Your task to perform on an android device: check storage Image 0: 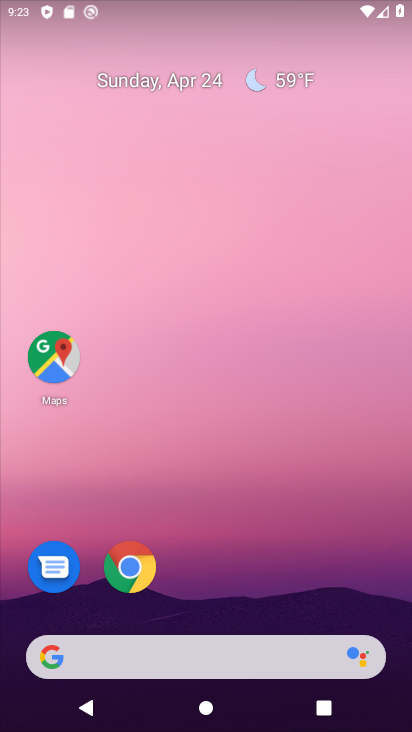
Step 0: click (347, 174)
Your task to perform on an android device: check storage Image 1: 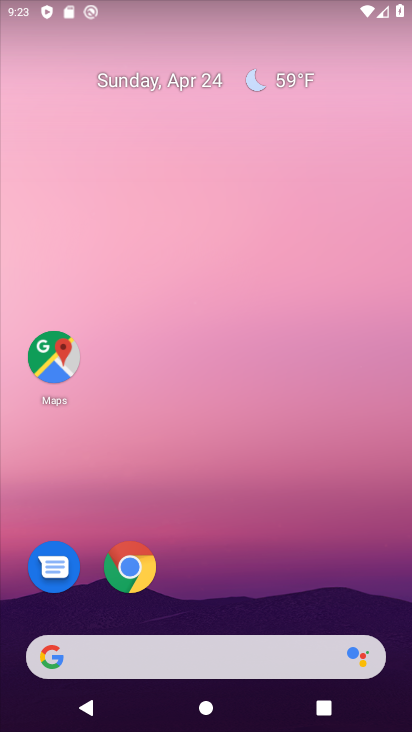
Step 1: drag from (329, 164) to (307, 66)
Your task to perform on an android device: check storage Image 2: 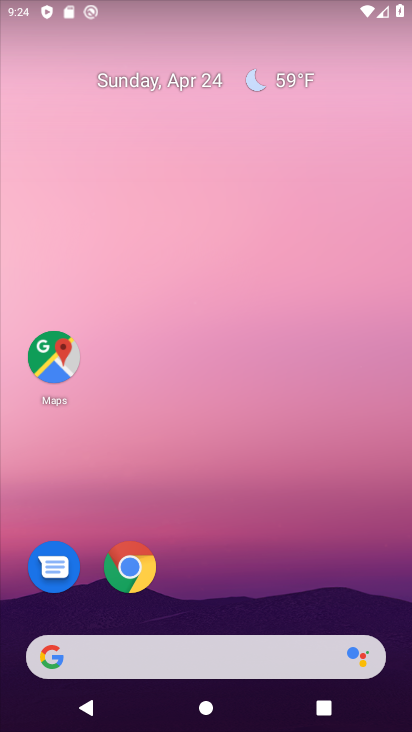
Step 2: click (289, 197)
Your task to perform on an android device: check storage Image 3: 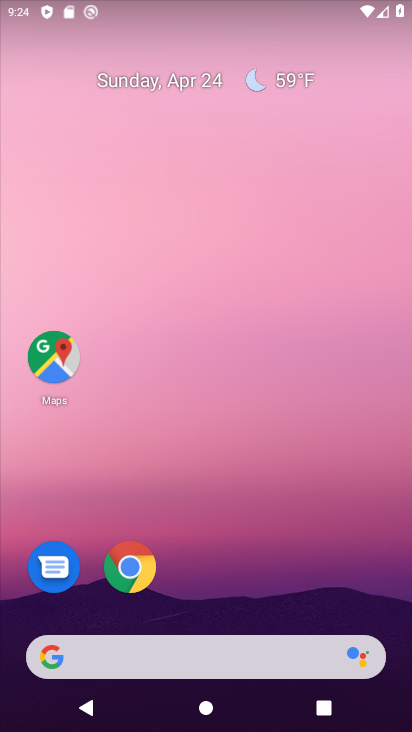
Step 3: drag from (394, 635) to (360, 80)
Your task to perform on an android device: check storage Image 4: 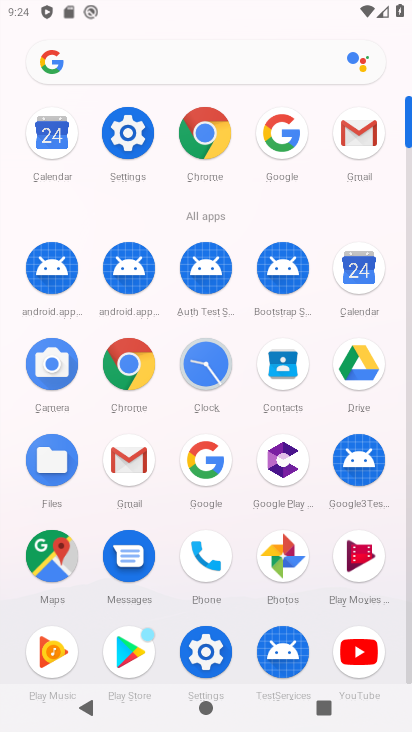
Step 4: click (128, 138)
Your task to perform on an android device: check storage Image 5: 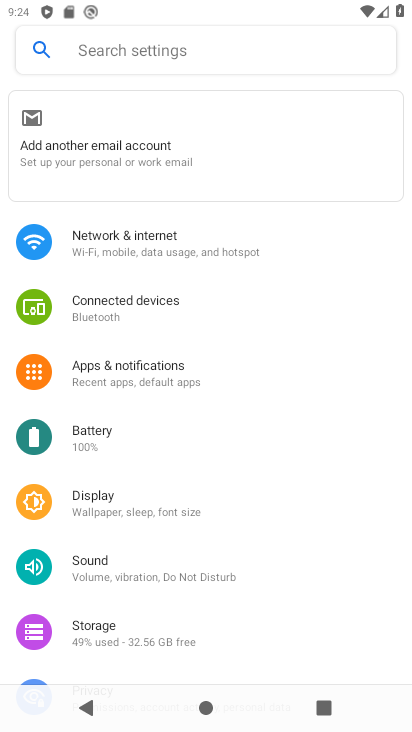
Step 5: click (98, 629)
Your task to perform on an android device: check storage Image 6: 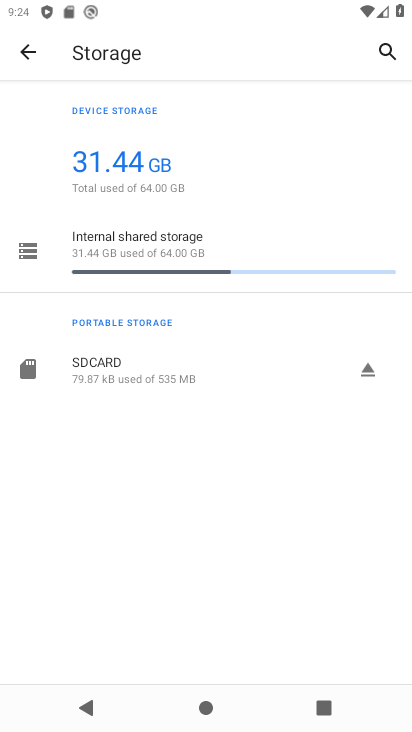
Step 6: task complete